Your task to perform on an android device: open wifi settings Image 0: 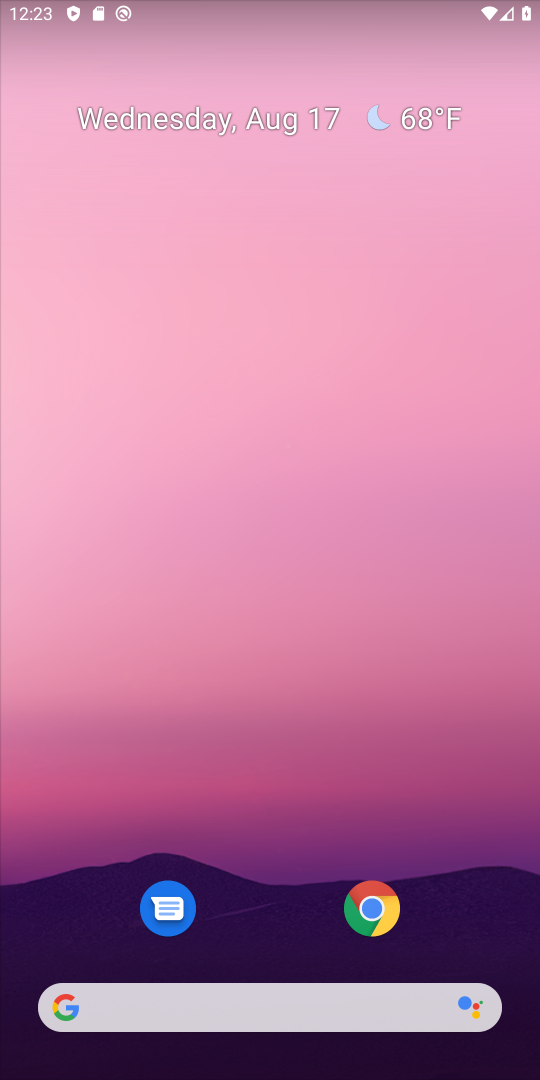
Step 0: drag from (244, 895) to (247, 271)
Your task to perform on an android device: open wifi settings Image 1: 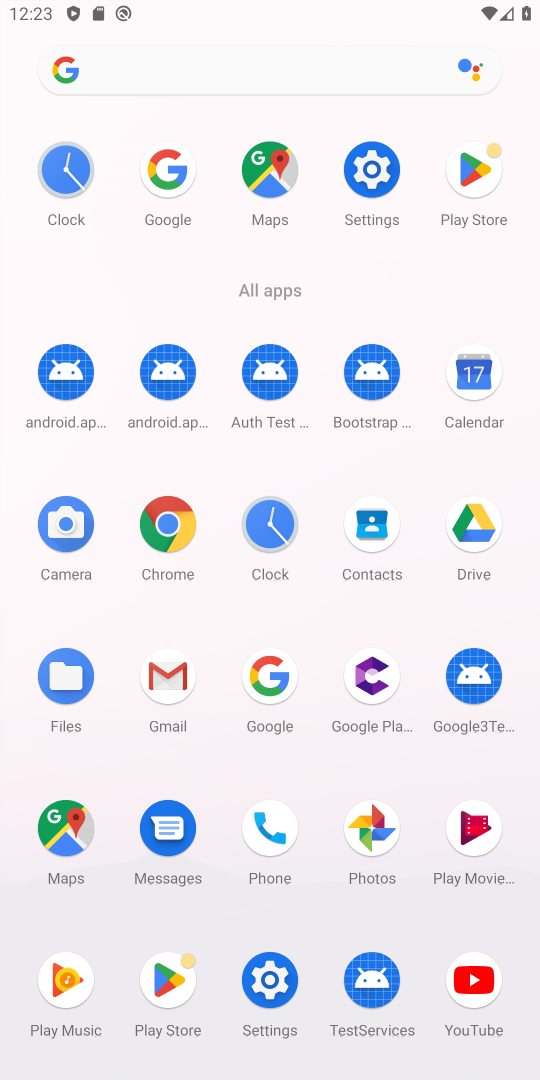
Step 1: click (380, 159)
Your task to perform on an android device: open wifi settings Image 2: 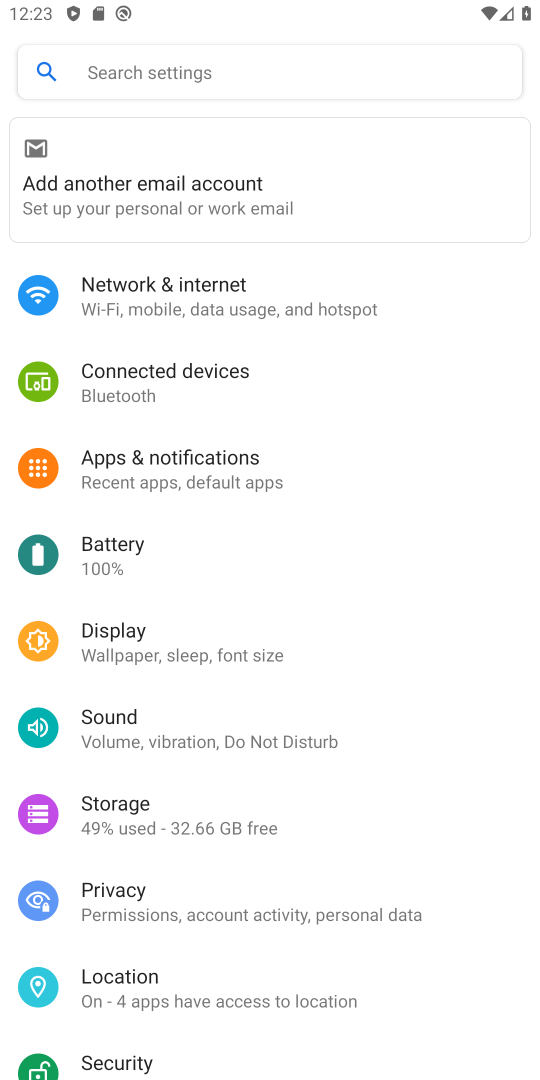
Step 2: click (114, 312)
Your task to perform on an android device: open wifi settings Image 3: 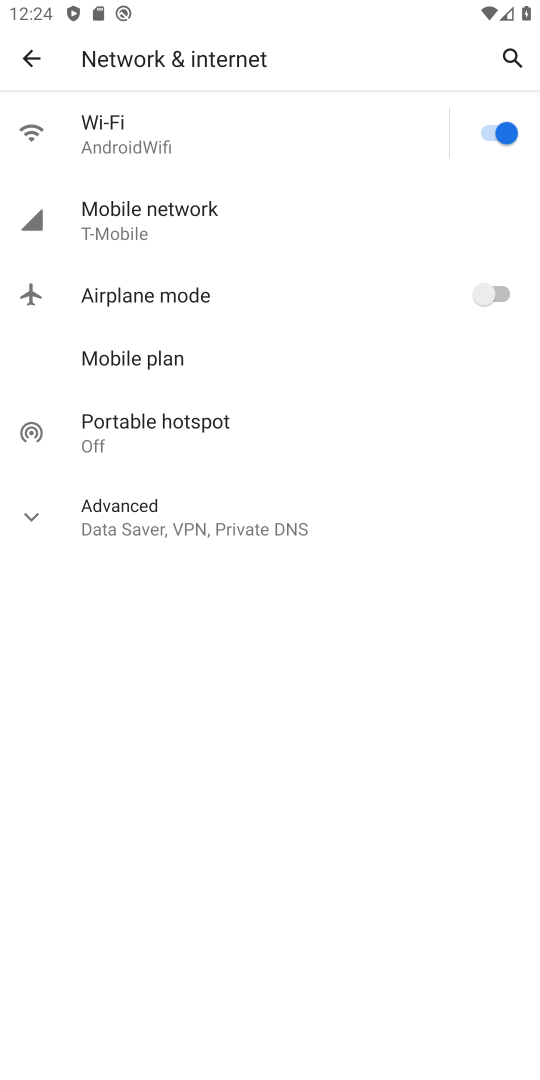
Step 3: click (117, 130)
Your task to perform on an android device: open wifi settings Image 4: 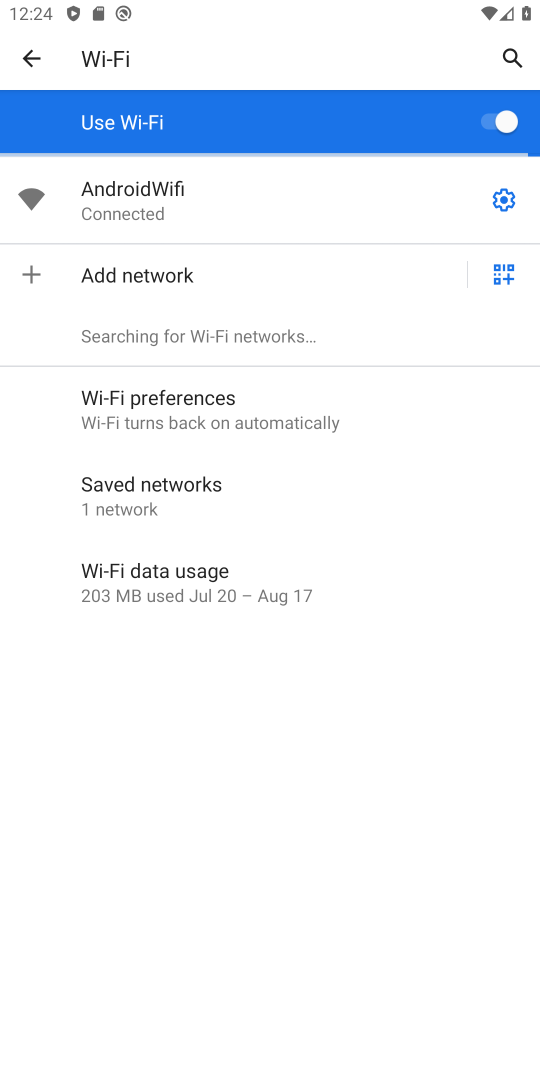
Step 4: task complete